Your task to perform on an android device: Open notification settings Image 0: 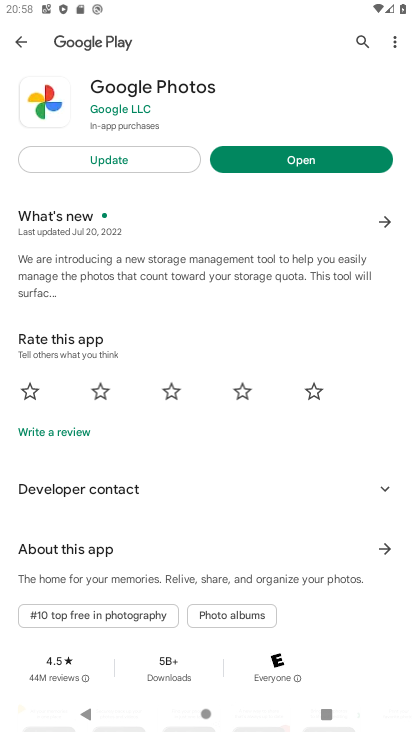
Step 0: press home button
Your task to perform on an android device: Open notification settings Image 1: 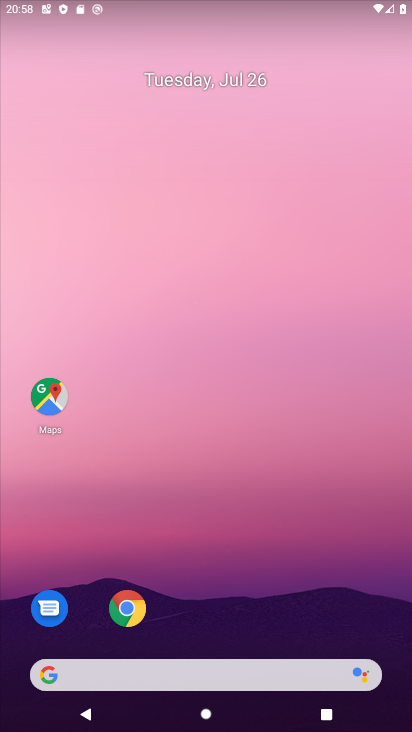
Step 1: drag from (34, 717) to (286, 125)
Your task to perform on an android device: Open notification settings Image 2: 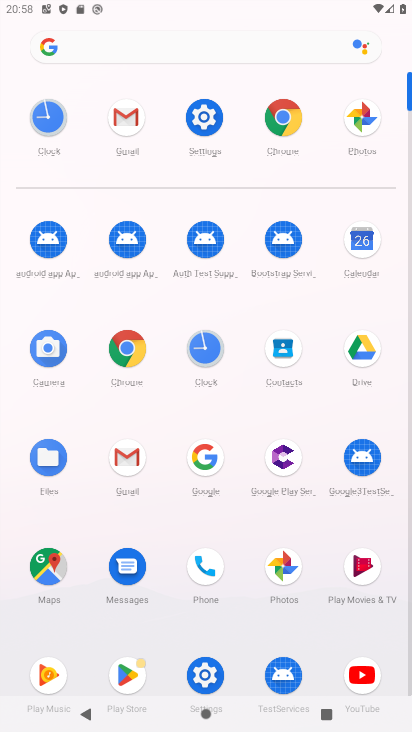
Step 2: click (193, 670)
Your task to perform on an android device: Open notification settings Image 3: 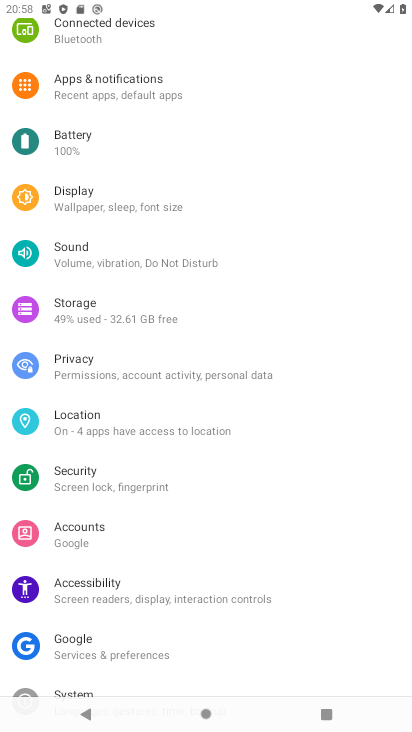
Step 3: click (154, 95)
Your task to perform on an android device: Open notification settings Image 4: 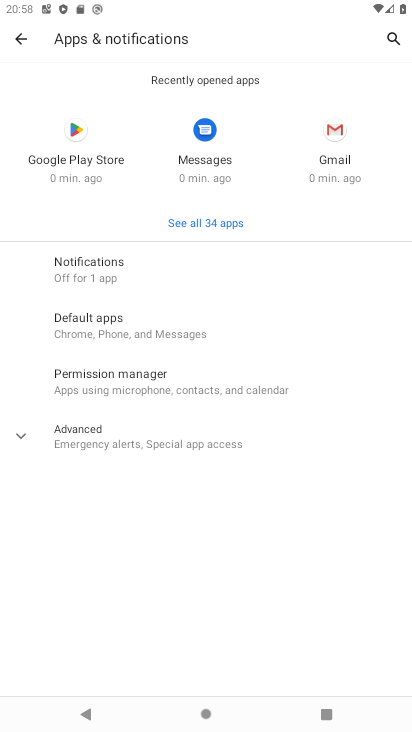
Step 4: task complete